Your task to perform on an android device: turn on showing notifications on the lock screen Image 0: 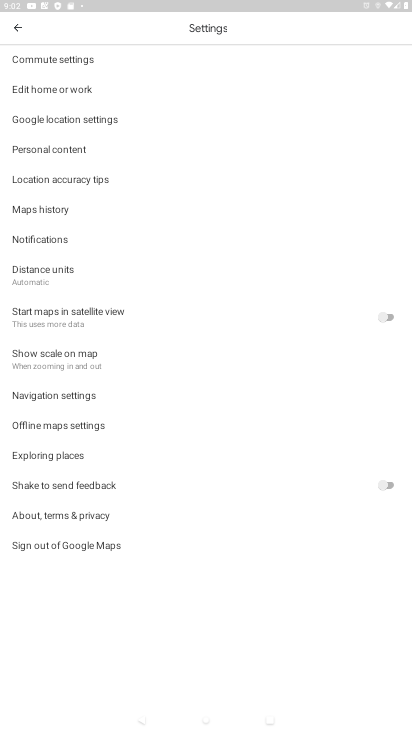
Step 0: press home button
Your task to perform on an android device: turn on showing notifications on the lock screen Image 1: 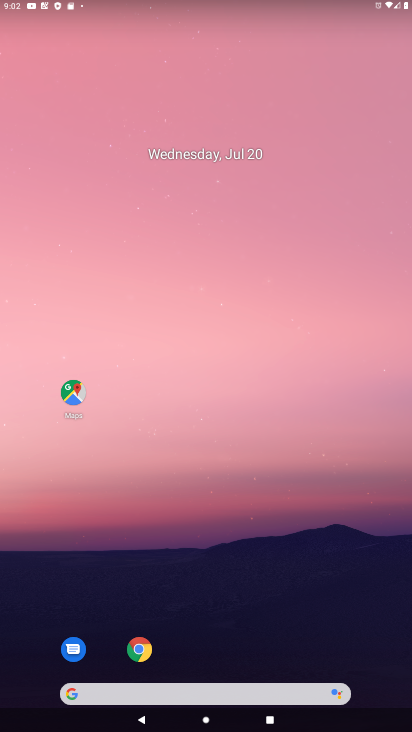
Step 1: drag from (148, 678) to (148, 279)
Your task to perform on an android device: turn on showing notifications on the lock screen Image 2: 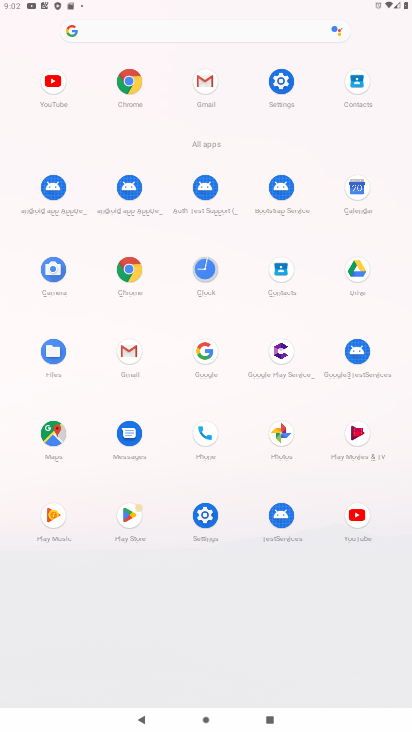
Step 2: click (277, 78)
Your task to perform on an android device: turn on showing notifications on the lock screen Image 3: 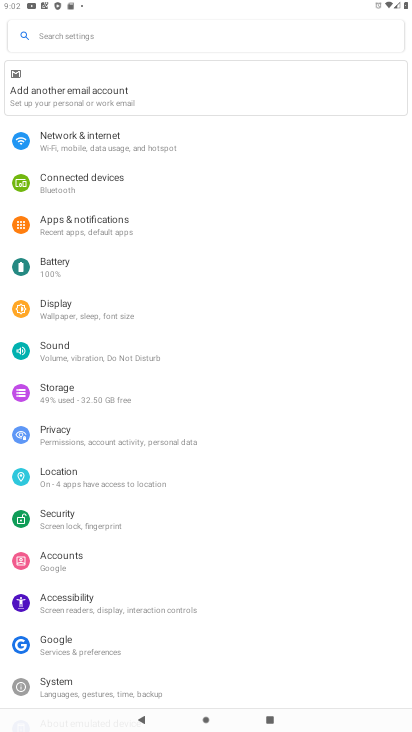
Step 3: click (55, 431)
Your task to perform on an android device: turn on showing notifications on the lock screen Image 4: 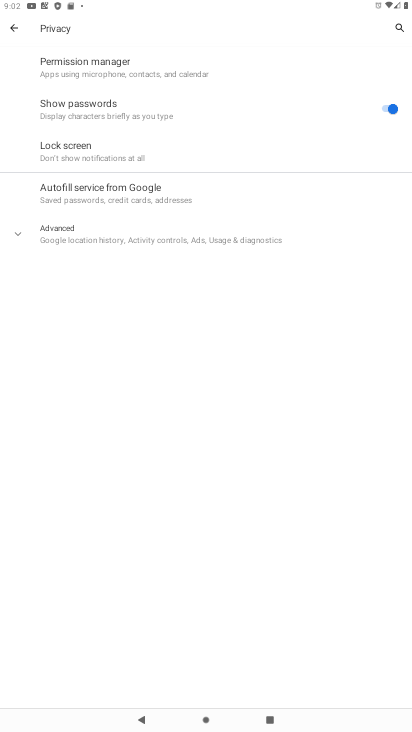
Step 4: click (73, 232)
Your task to perform on an android device: turn on showing notifications on the lock screen Image 5: 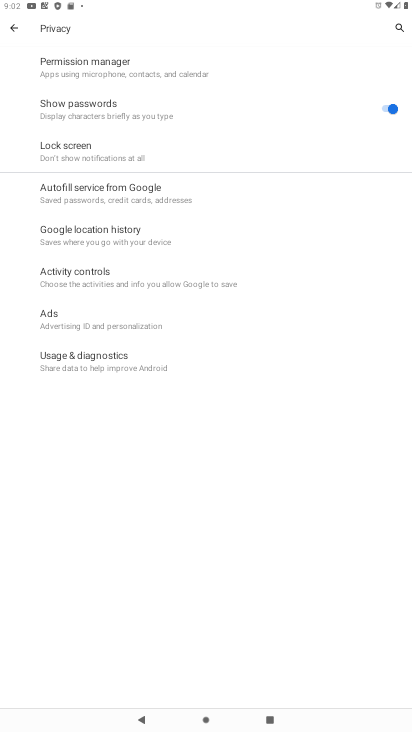
Step 5: click (66, 149)
Your task to perform on an android device: turn on showing notifications on the lock screen Image 6: 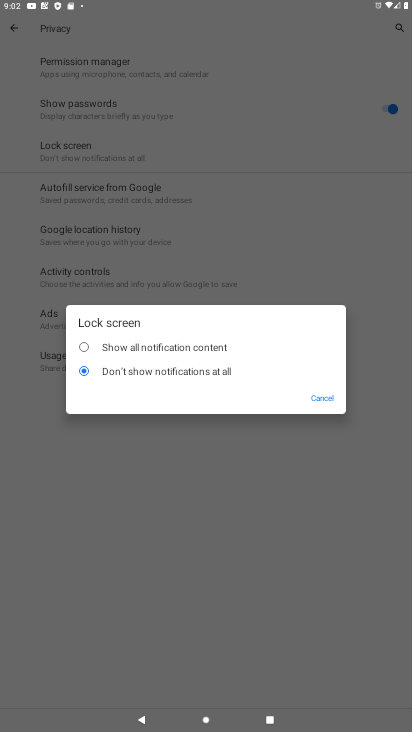
Step 6: click (160, 345)
Your task to perform on an android device: turn on showing notifications on the lock screen Image 7: 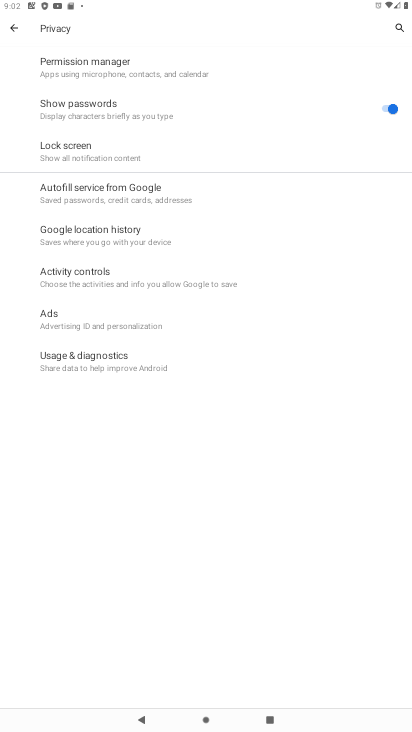
Step 7: task complete